Your task to perform on an android device: Go to Amazon Image 0: 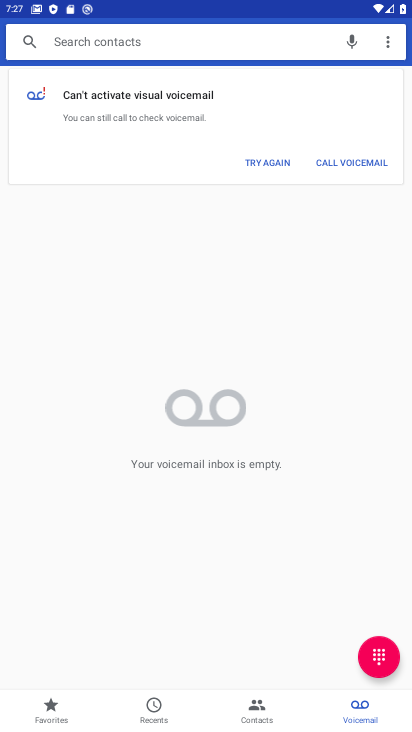
Step 0: press home button
Your task to perform on an android device: Go to Amazon Image 1: 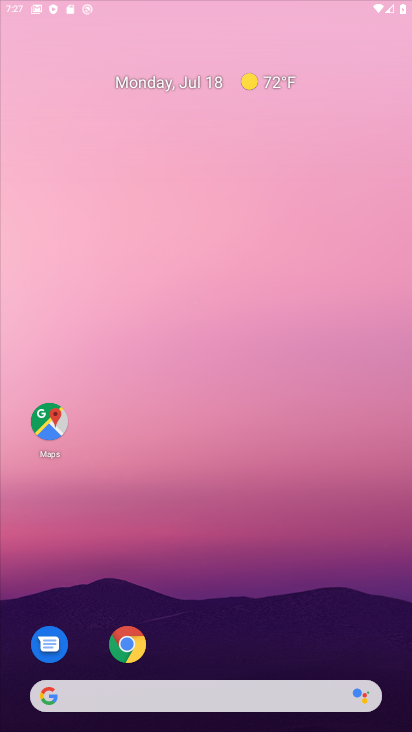
Step 1: drag from (365, 604) to (251, 0)
Your task to perform on an android device: Go to Amazon Image 2: 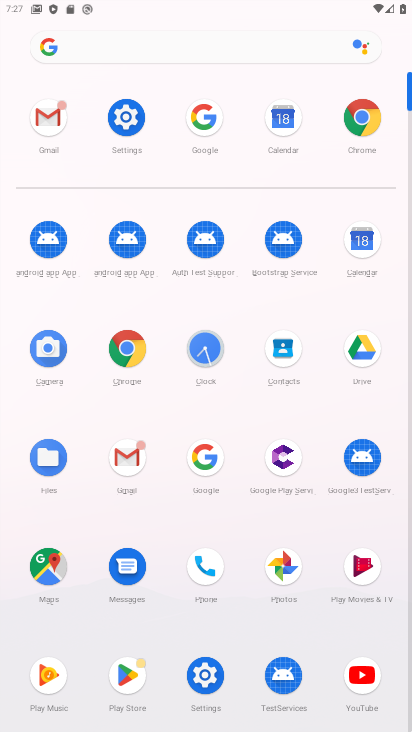
Step 2: click (211, 464)
Your task to perform on an android device: Go to Amazon Image 3: 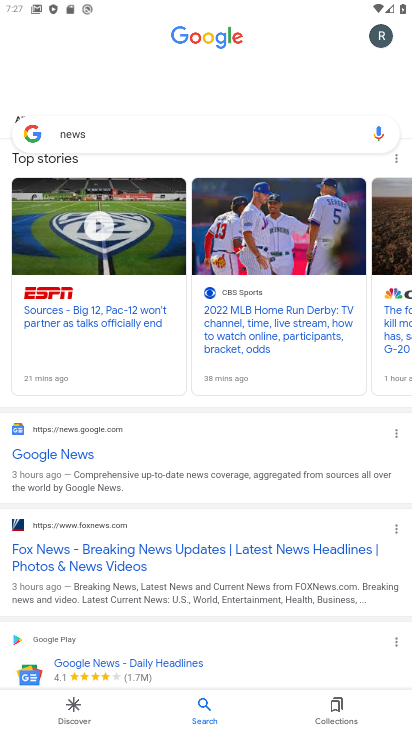
Step 3: press back button
Your task to perform on an android device: Go to Amazon Image 4: 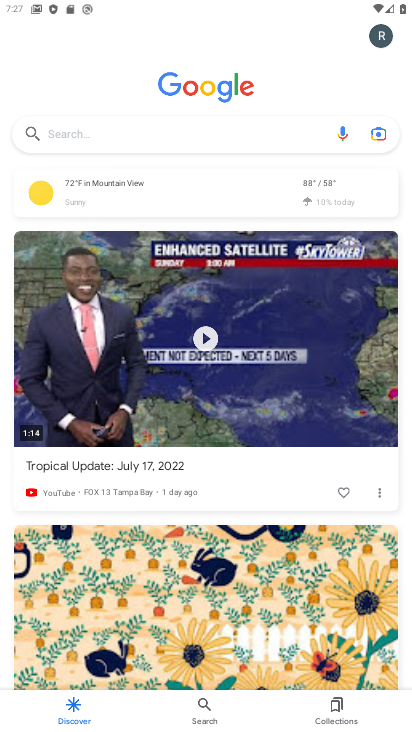
Step 4: click (105, 134)
Your task to perform on an android device: Go to Amazon Image 5: 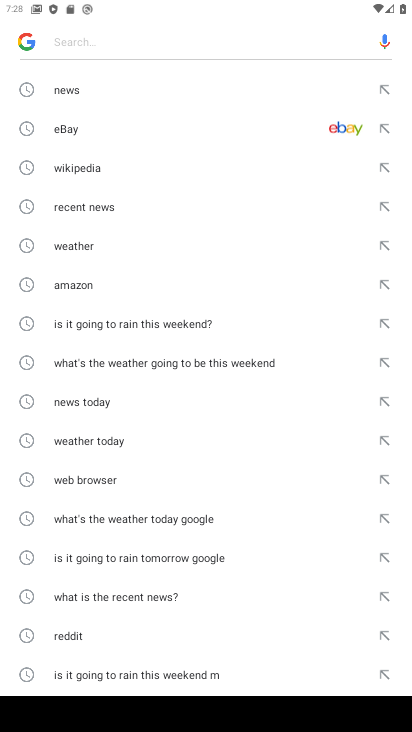
Step 5: click (84, 277)
Your task to perform on an android device: Go to Amazon Image 6: 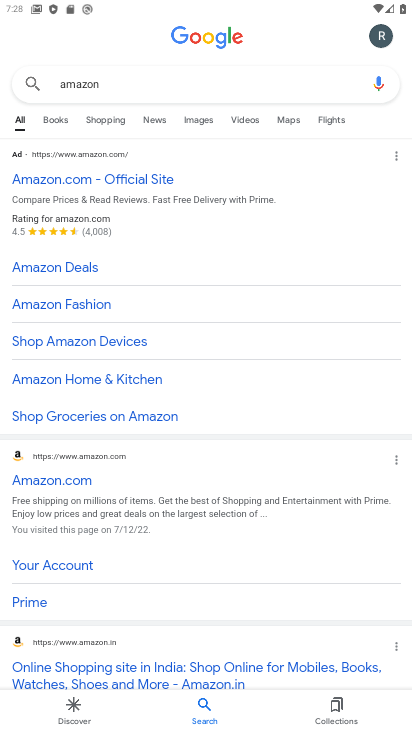
Step 6: task complete